Your task to perform on an android device: Search for vegetarian restaurants on Maps Image 0: 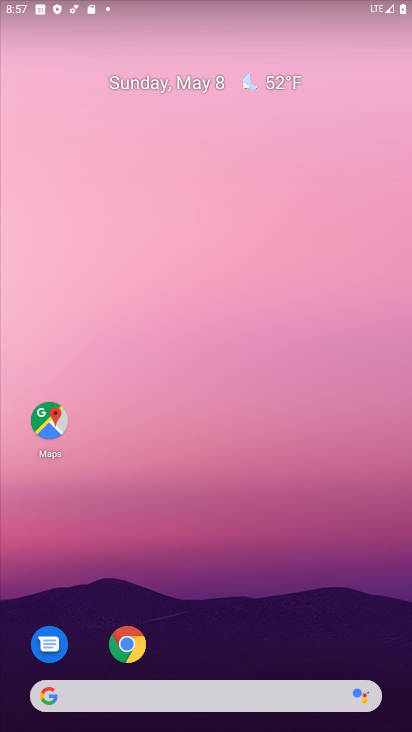
Step 0: drag from (193, 628) to (253, 180)
Your task to perform on an android device: Search for vegetarian restaurants on Maps Image 1: 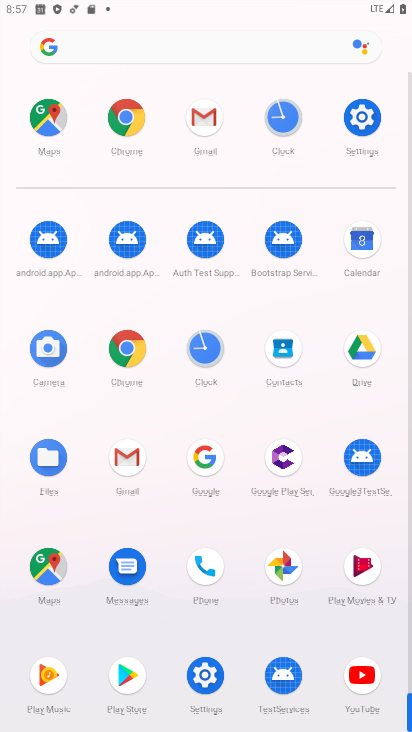
Step 1: drag from (237, 649) to (278, 260)
Your task to perform on an android device: Search for vegetarian restaurants on Maps Image 2: 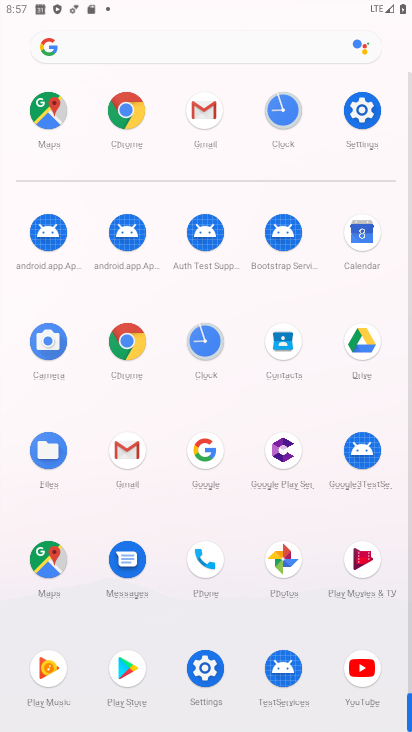
Step 2: click (40, 571)
Your task to perform on an android device: Search for vegetarian restaurants on Maps Image 3: 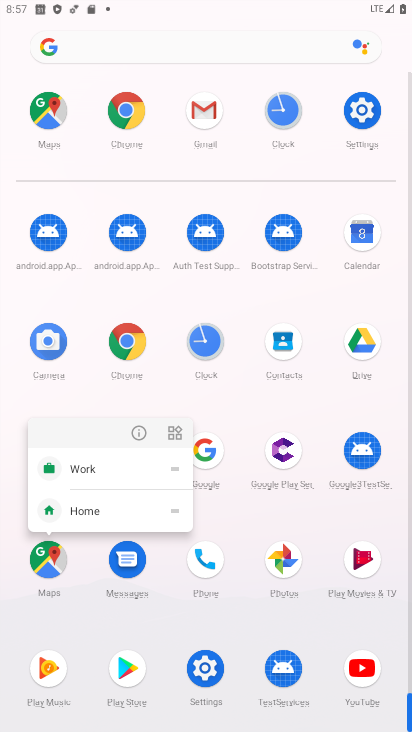
Step 3: click (132, 434)
Your task to perform on an android device: Search for vegetarian restaurants on Maps Image 4: 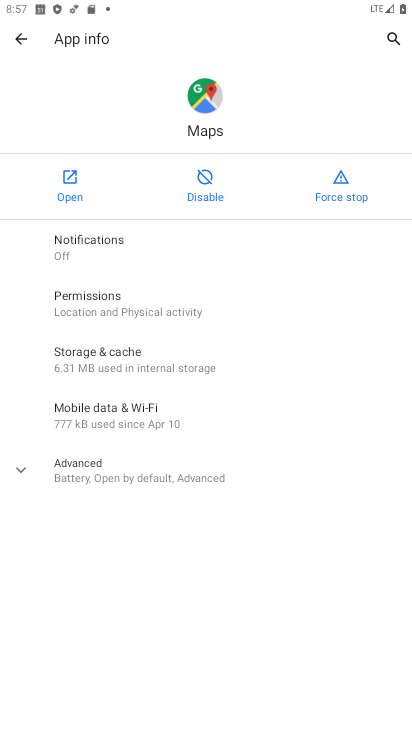
Step 4: click (70, 186)
Your task to perform on an android device: Search for vegetarian restaurants on Maps Image 5: 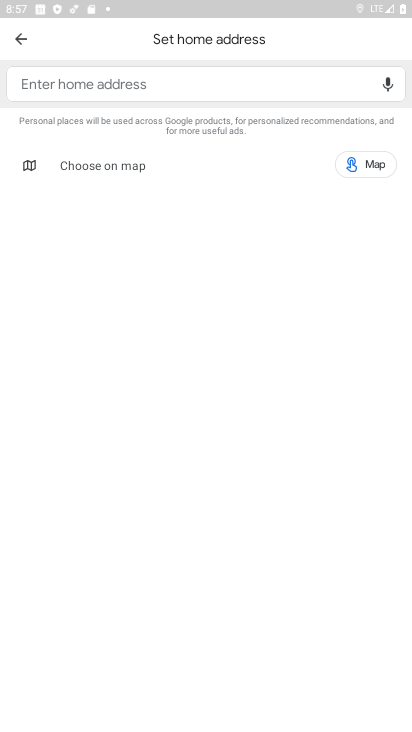
Step 5: press home button
Your task to perform on an android device: Search for vegetarian restaurants on Maps Image 6: 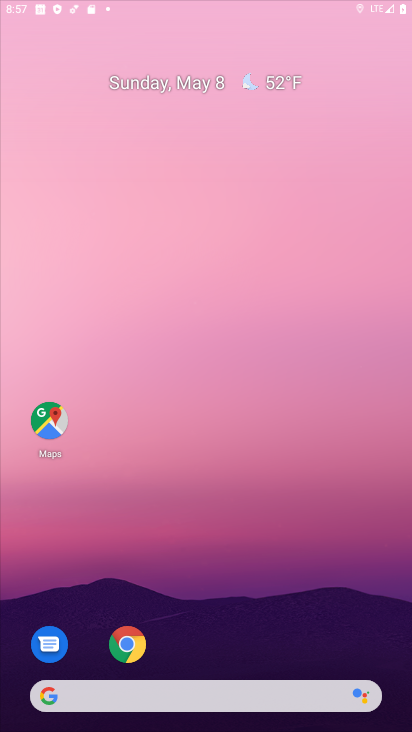
Step 6: drag from (225, 700) to (274, 345)
Your task to perform on an android device: Search for vegetarian restaurants on Maps Image 7: 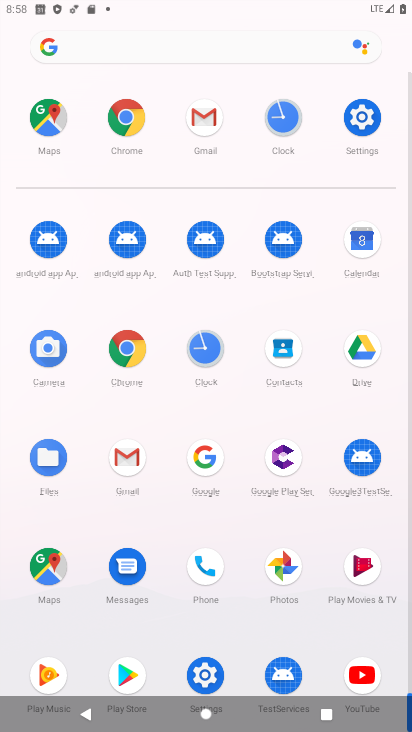
Step 7: click (48, 563)
Your task to perform on an android device: Search for vegetarian restaurants on Maps Image 8: 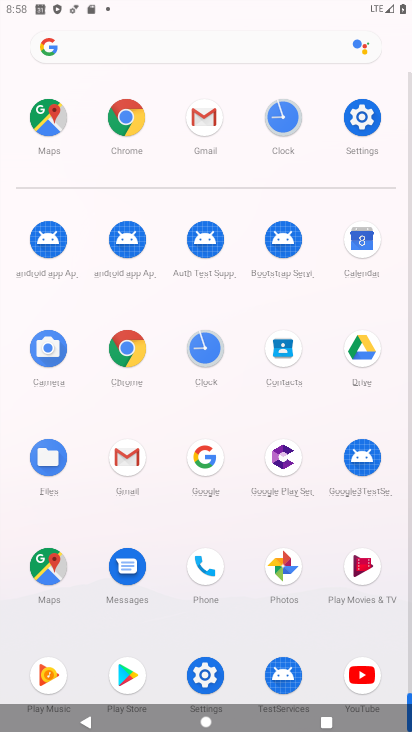
Step 8: click (48, 563)
Your task to perform on an android device: Search for vegetarian restaurants on Maps Image 9: 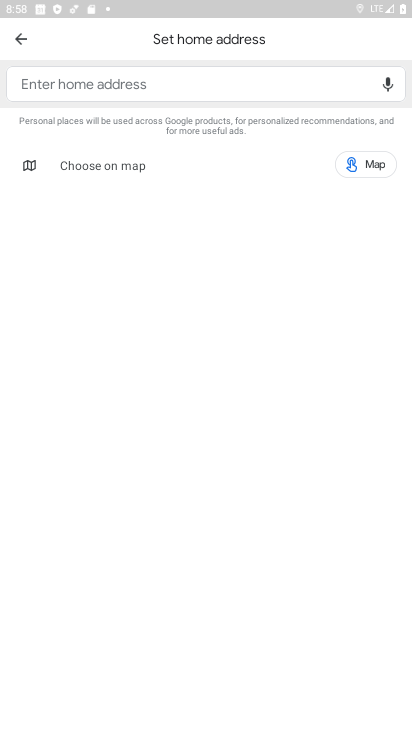
Step 9: click (26, 35)
Your task to perform on an android device: Search for vegetarian restaurants on Maps Image 10: 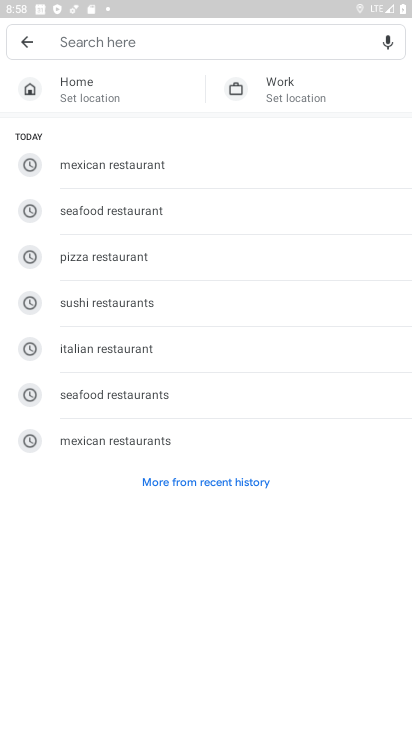
Step 10: click (136, 31)
Your task to perform on an android device: Search for vegetarian restaurants on Maps Image 11: 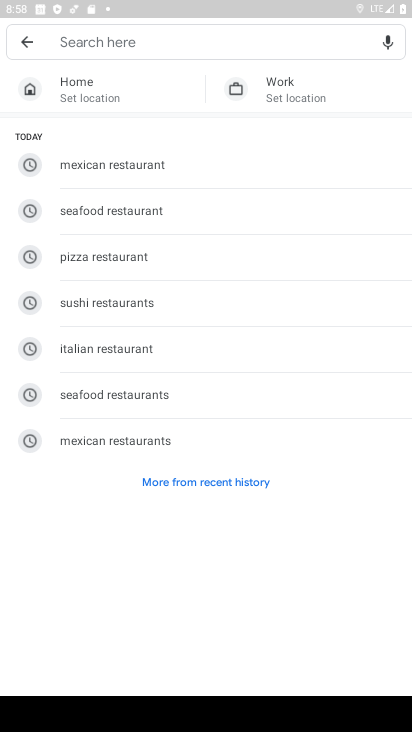
Step 11: click (9, 39)
Your task to perform on an android device: Search for vegetarian restaurants on Maps Image 12: 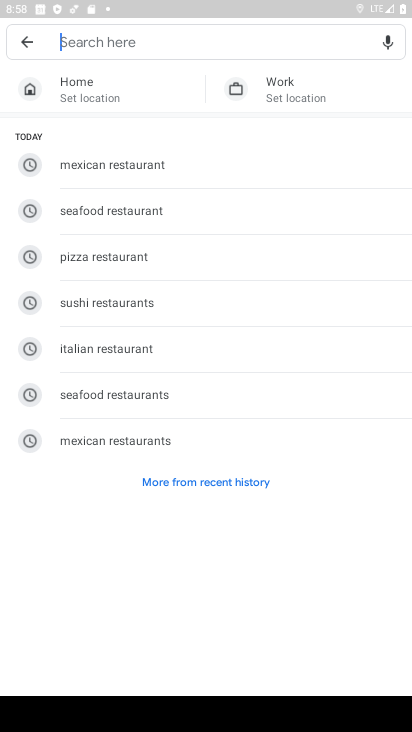
Step 12: click (19, 41)
Your task to perform on an android device: Search for vegetarian restaurants on Maps Image 13: 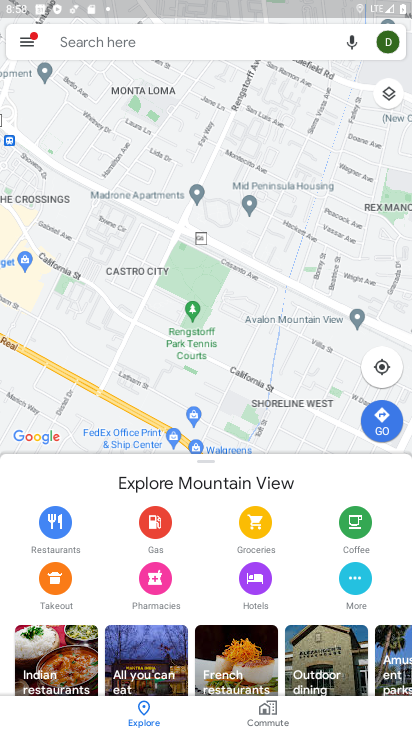
Step 13: drag from (213, 481) to (247, 376)
Your task to perform on an android device: Search for vegetarian restaurants on Maps Image 14: 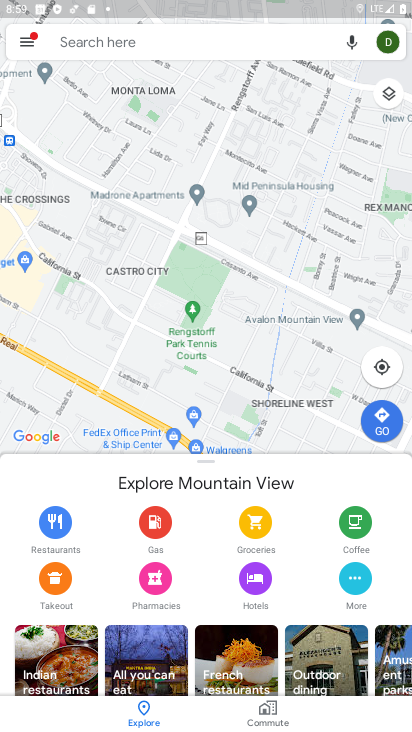
Step 14: drag from (183, 473) to (268, 58)
Your task to perform on an android device: Search for vegetarian restaurants on Maps Image 15: 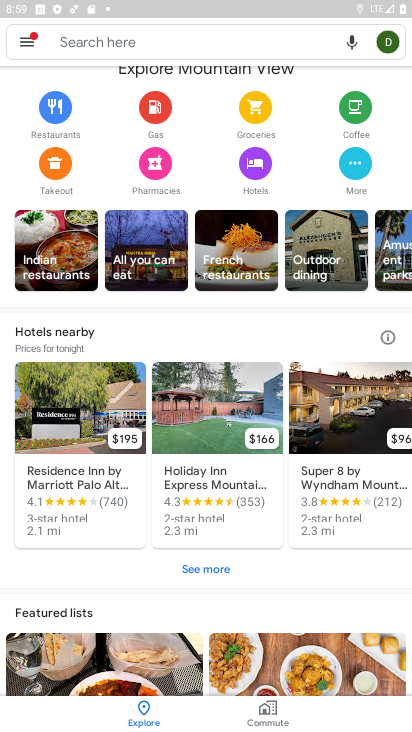
Step 15: click (161, 38)
Your task to perform on an android device: Search for vegetarian restaurants on Maps Image 16: 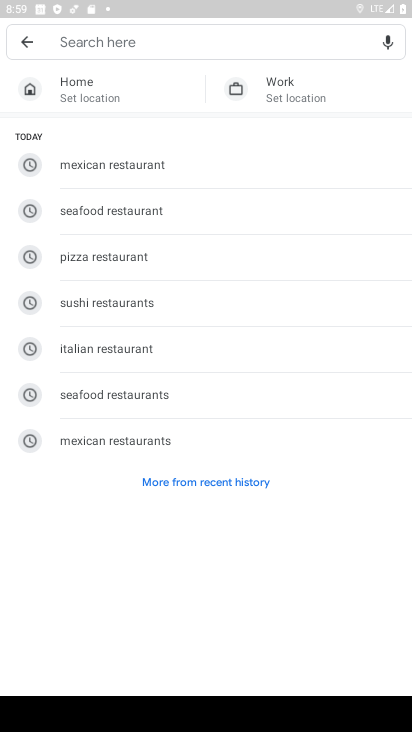
Step 16: click (183, 38)
Your task to perform on an android device: Search for vegetarian restaurants on Maps Image 17: 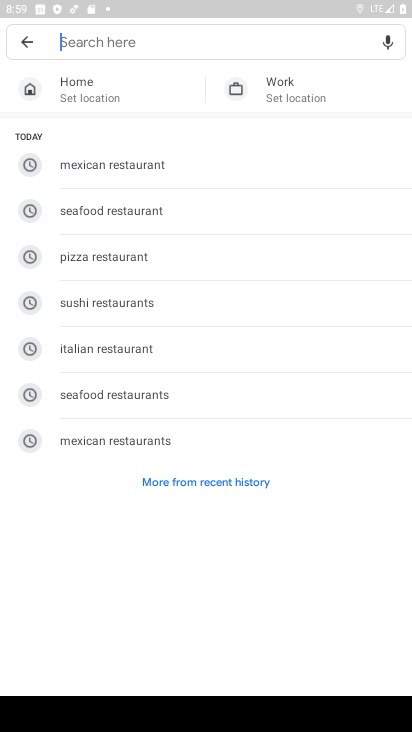
Step 17: type "vegetarian restaurants"
Your task to perform on an android device: Search for vegetarian restaurants on Maps Image 18: 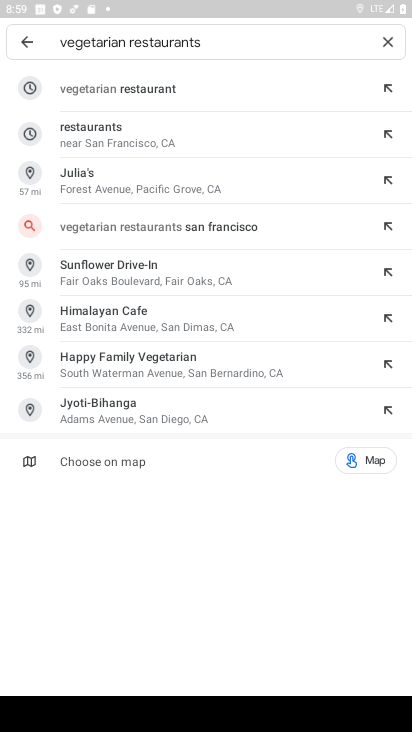
Step 18: click (110, 95)
Your task to perform on an android device: Search for vegetarian restaurants on Maps Image 19: 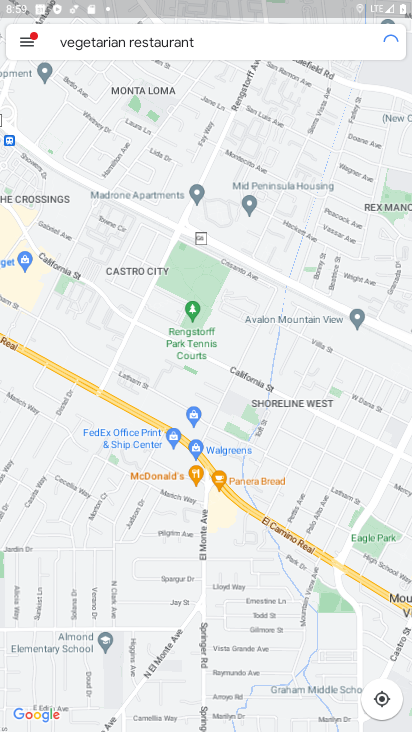
Step 19: task complete